Your task to perform on an android device: turn on sleep mode Image 0: 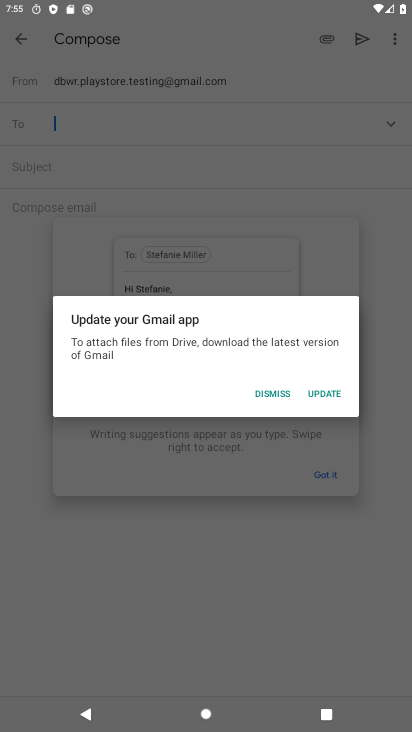
Step 0: press home button
Your task to perform on an android device: turn on sleep mode Image 1: 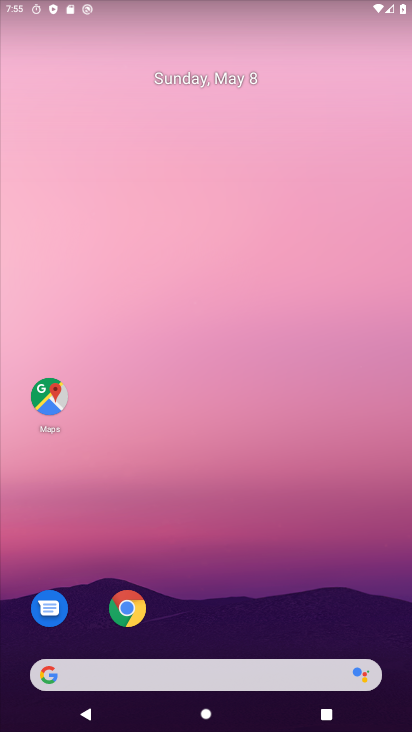
Step 1: drag from (306, 608) to (342, 130)
Your task to perform on an android device: turn on sleep mode Image 2: 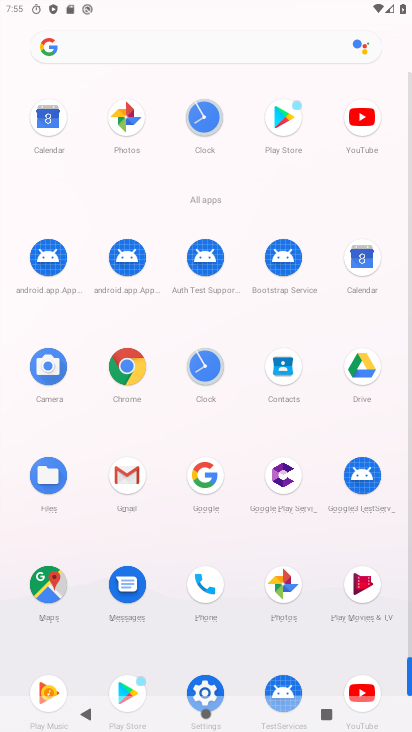
Step 2: click (205, 685)
Your task to perform on an android device: turn on sleep mode Image 3: 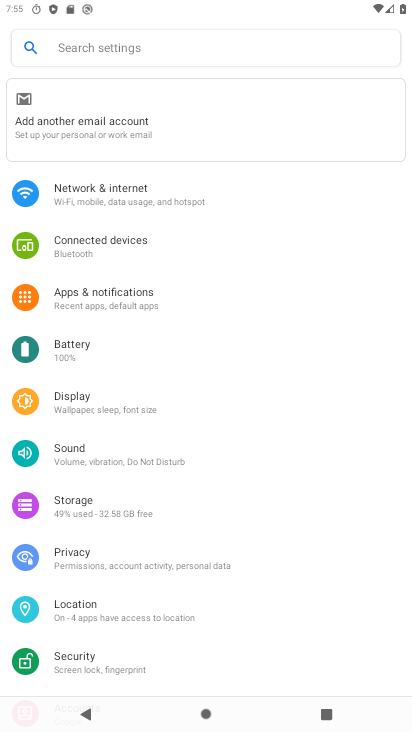
Step 3: click (130, 411)
Your task to perform on an android device: turn on sleep mode Image 4: 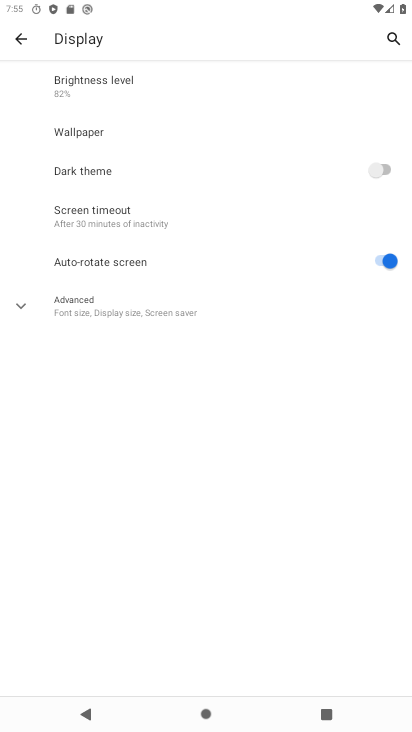
Step 4: click (20, 305)
Your task to perform on an android device: turn on sleep mode Image 5: 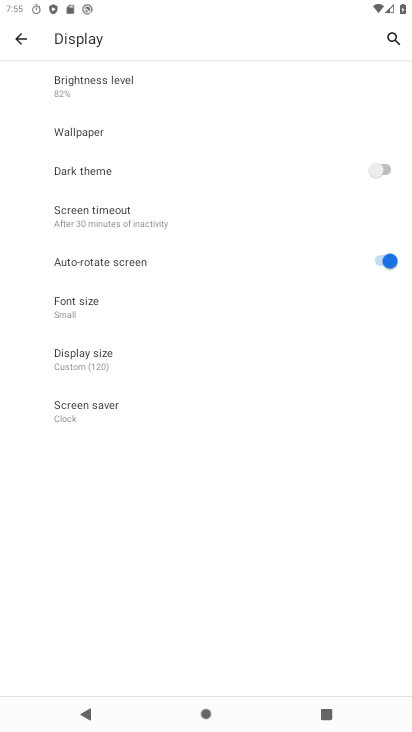
Step 5: task complete